Your task to perform on an android device: open app "Airtel Thanks" Image 0: 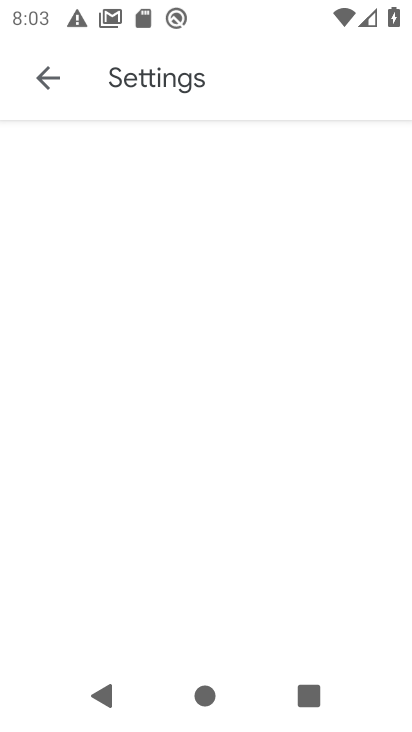
Step 0: press home button
Your task to perform on an android device: open app "Airtel Thanks" Image 1: 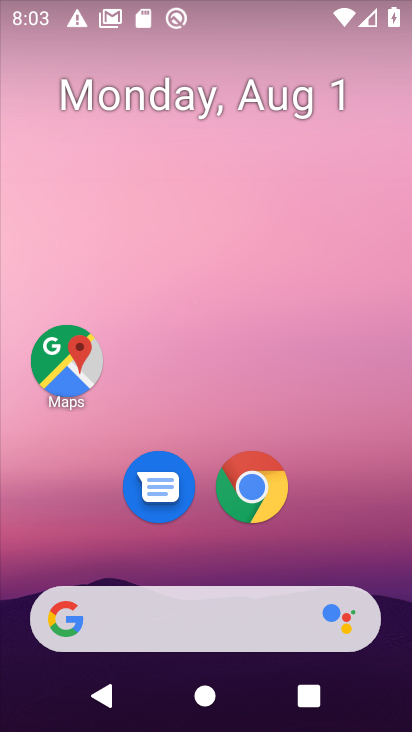
Step 1: drag from (371, 566) to (362, 140)
Your task to perform on an android device: open app "Airtel Thanks" Image 2: 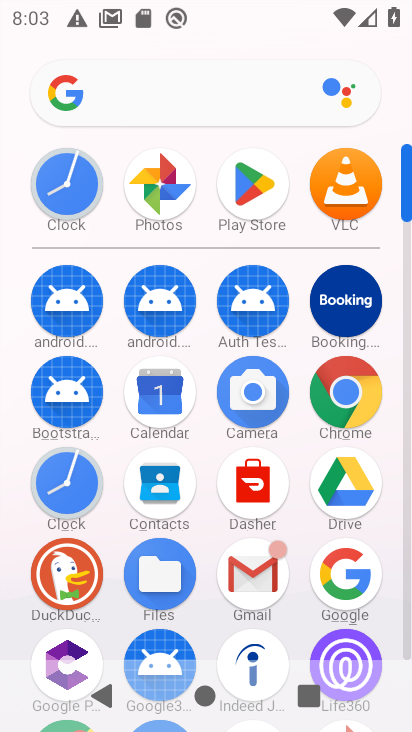
Step 2: click (252, 198)
Your task to perform on an android device: open app "Airtel Thanks" Image 3: 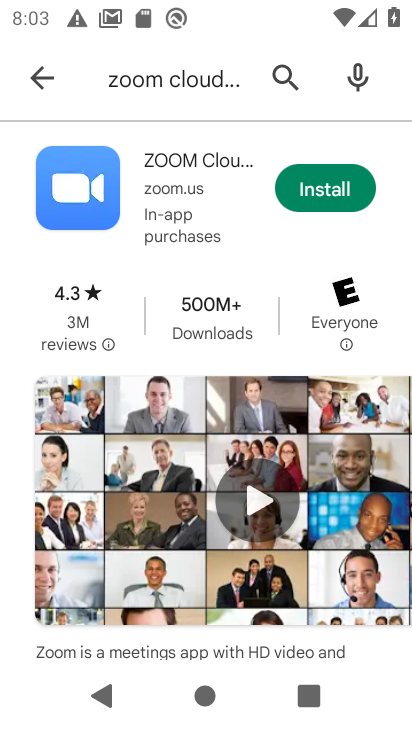
Step 3: click (286, 80)
Your task to perform on an android device: open app "Airtel Thanks" Image 4: 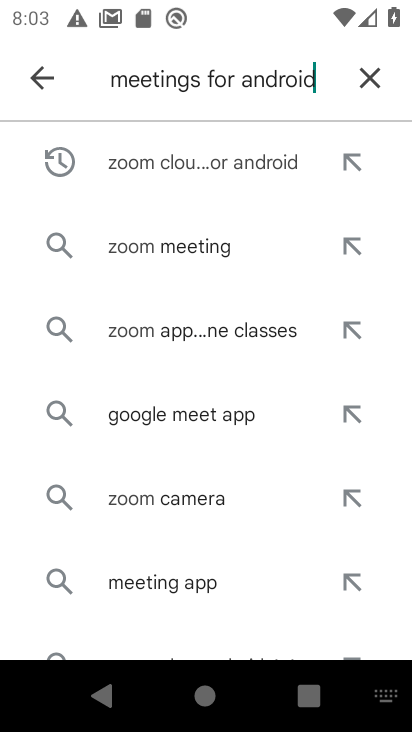
Step 4: click (368, 81)
Your task to perform on an android device: open app "Airtel Thanks" Image 5: 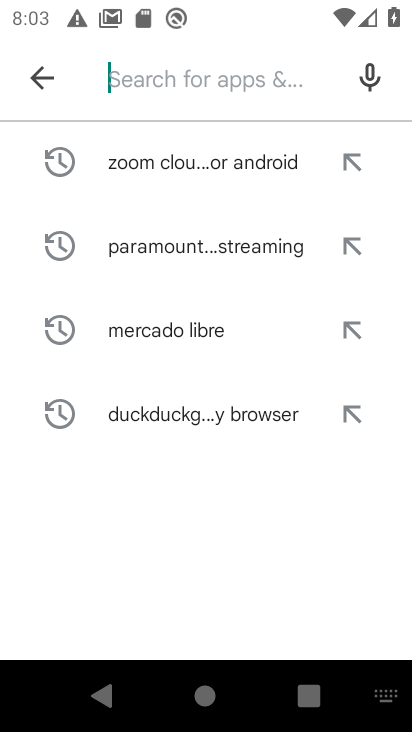
Step 5: type "airtel thanks"
Your task to perform on an android device: open app "Airtel Thanks" Image 6: 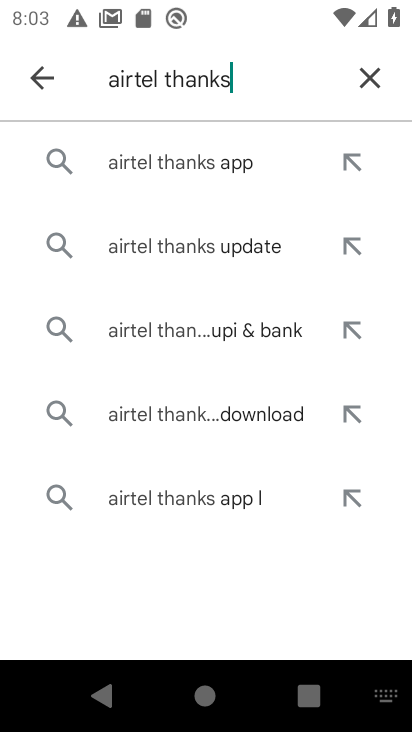
Step 6: click (240, 163)
Your task to perform on an android device: open app "Airtel Thanks" Image 7: 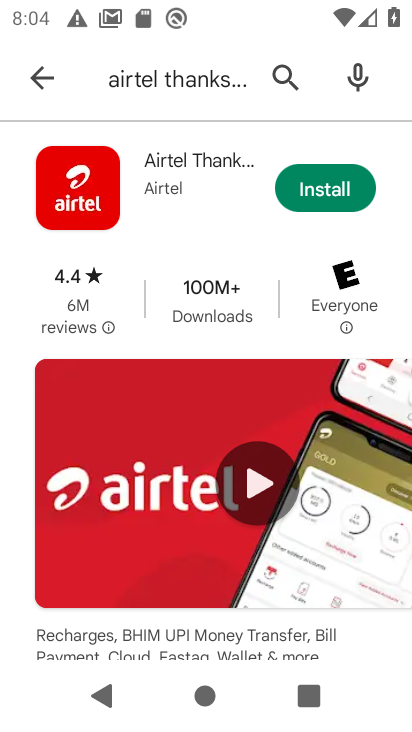
Step 7: task complete